Your task to perform on an android device: Show me recent news Image 0: 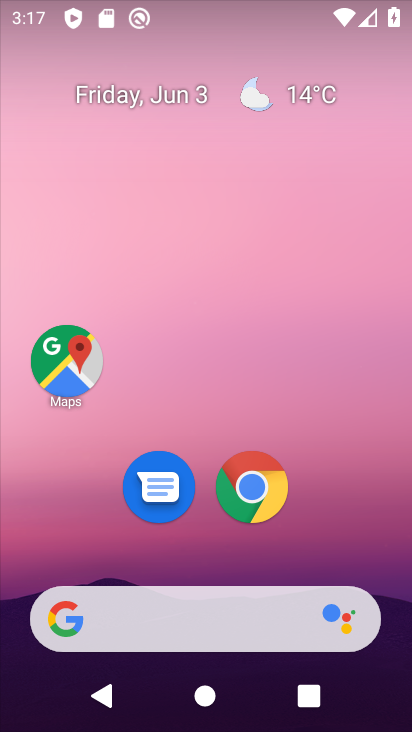
Step 0: click (189, 600)
Your task to perform on an android device: Show me recent news Image 1: 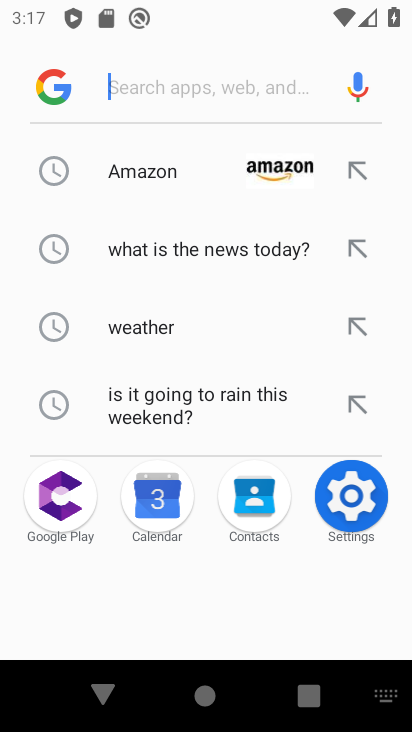
Step 1: drag from (160, 364) to (211, 28)
Your task to perform on an android device: Show me recent news Image 2: 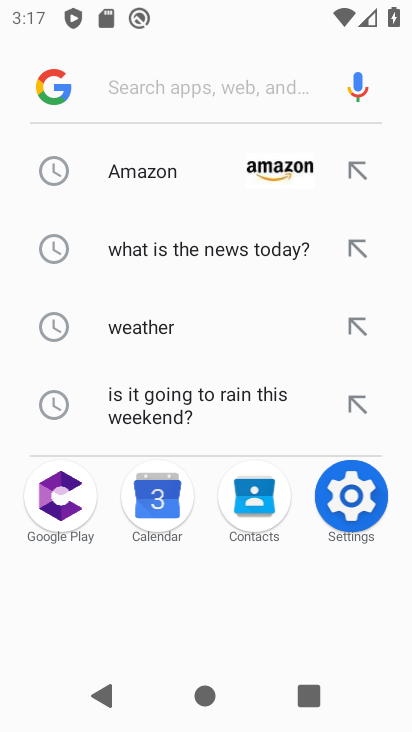
Step 2: click (168, 80)
Your task to perform on an android device: Show me recent news Image 3: 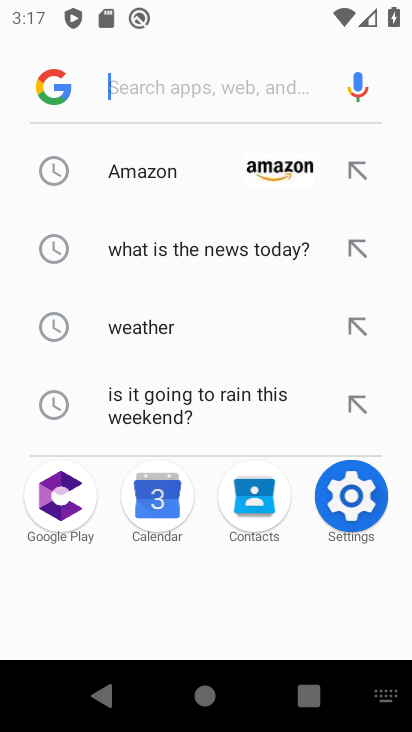
Step 3: type "recent news"
Your task to perform on an android device: Show me recent news Image 4: 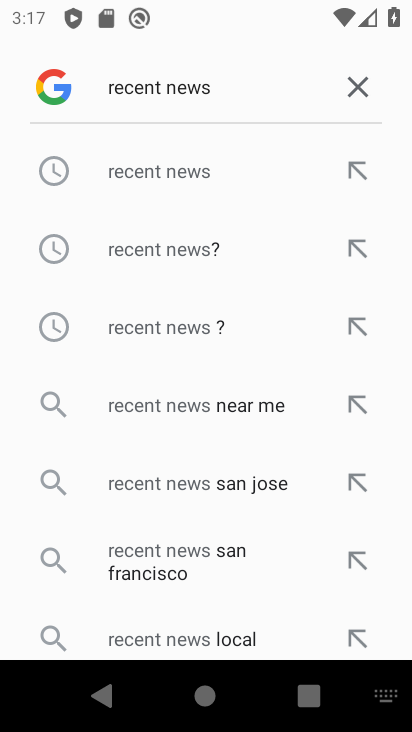
Step 4: click (164, 165)
Your task to perform on an android device: Show me recent news Image 5: 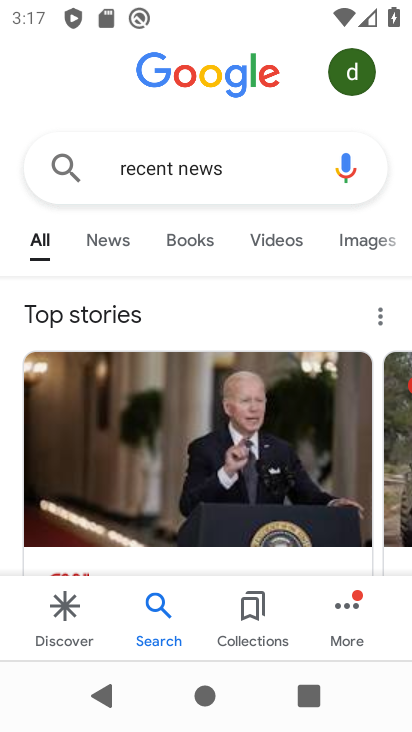
Step 5: task complete